Your task to perform on an android device: toggle translation in the chrome app Image 0: 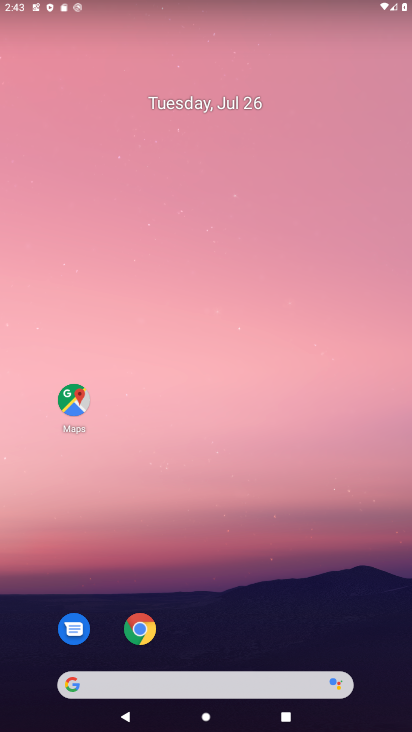
Step 0: click (134, 641)
Your task to perform on an android device: toggle translation in the chrome app Image 1: 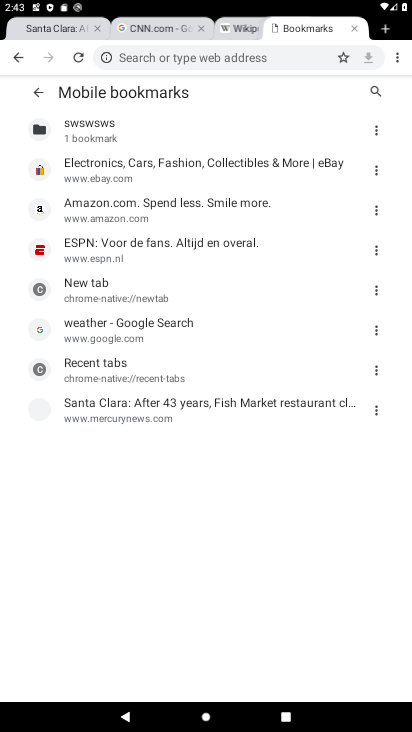
Step 1: click (390, 58)
Your task to perform on an android device: toggle translation in the chrome app Image 2: 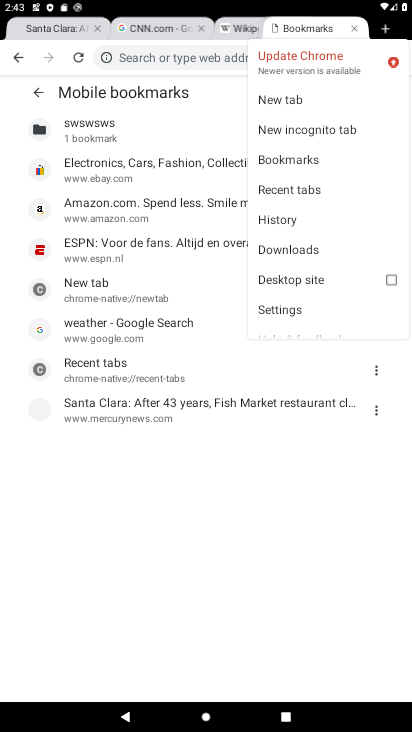
Step 2: click (306, 316)
Your task to perform on an android device: toggle translation in the chrome app Image 3: 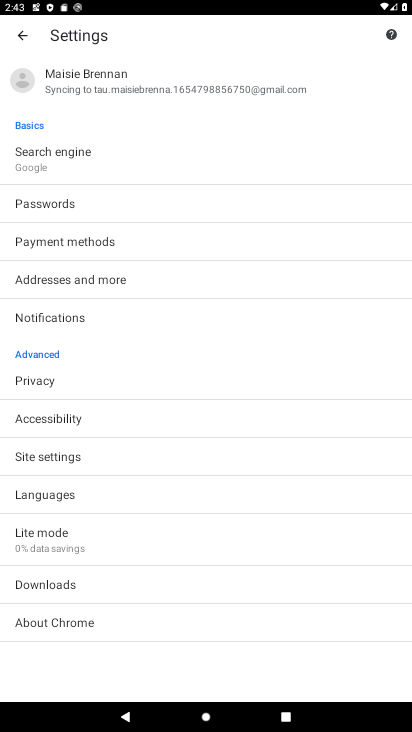
Step 3: click (105, 488)
Your task to perform on an android device: toggle translation in the chrome app Image 4: 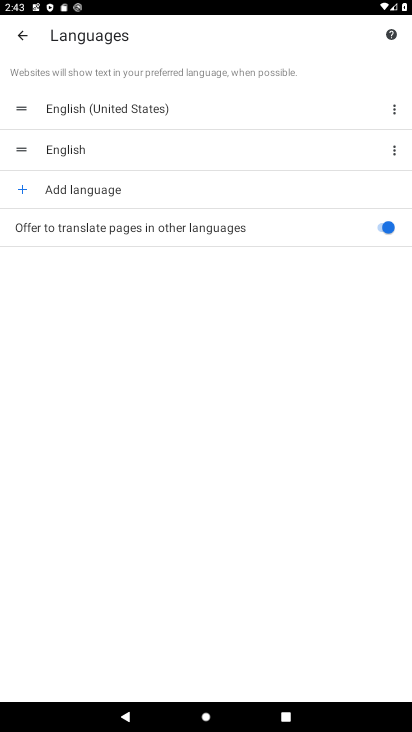
Step 4: click (389, 235)
Your task to perform on an android device: toggle translation in the chrome app Image 5: 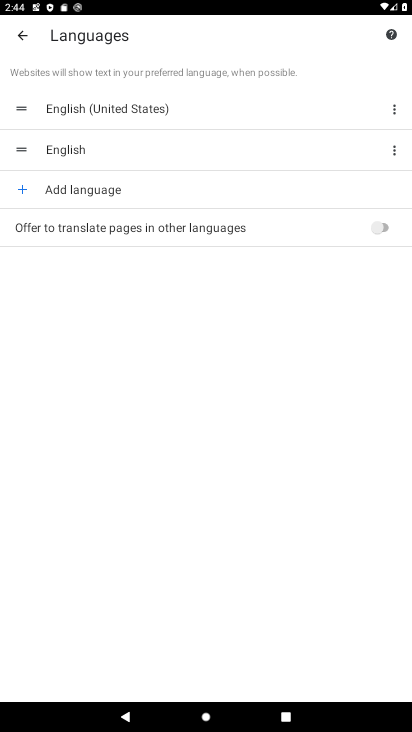
Step 5: click (388, 230)
Your task to perform on an android device: toggle translation in the chrome app Image 6: 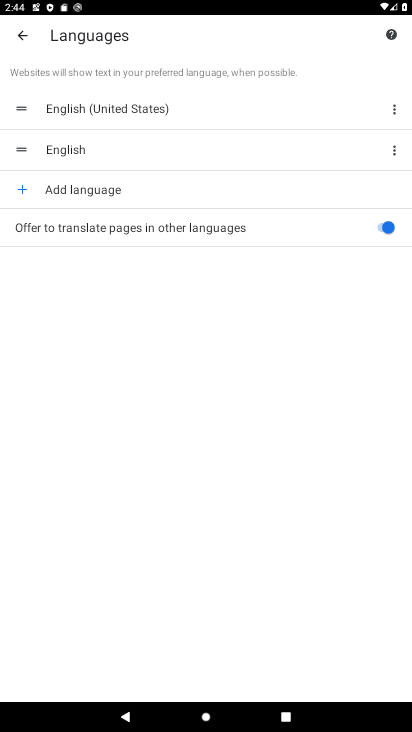
Step 6: task complete